Your task to perform on an android device: change the clock display to analog Image 0: 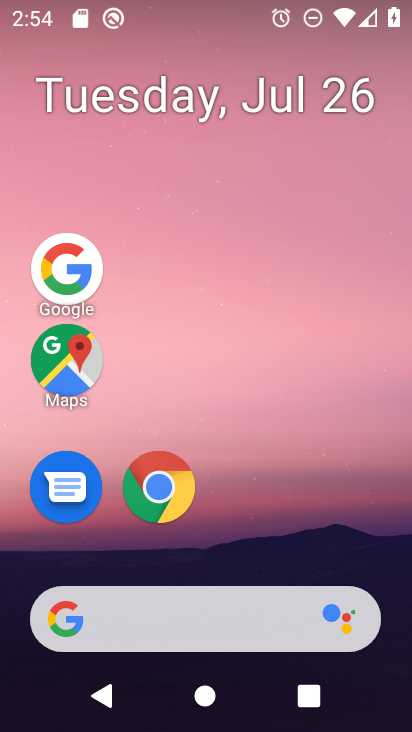
Step 0: drag from (193, 612) to (232, 221)
Your task to perform on an android device: change the clock display to analog Image 1: 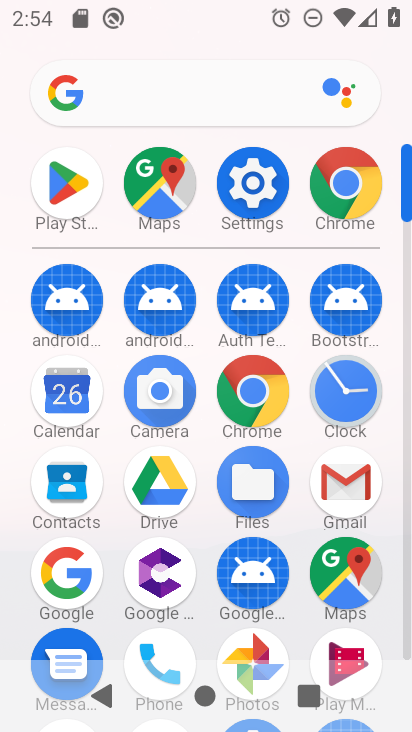
Step 1: click (341, 422)
Your task to perform on an android device: change the clock display to analog Image 2: 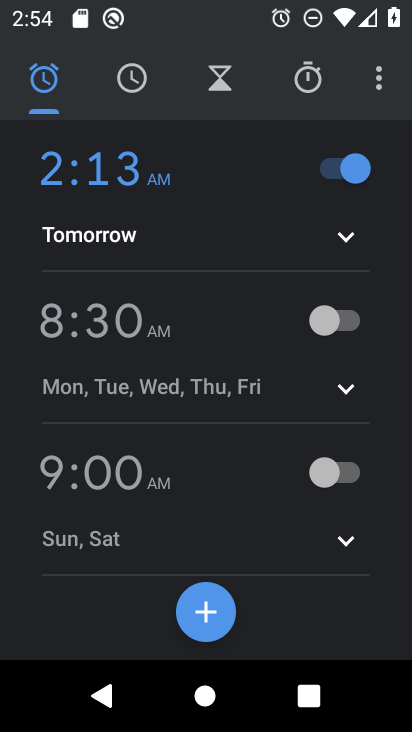
Step 2: click (377, 78)
Your task to perform on an android device: change the clock display to analog Image 3: 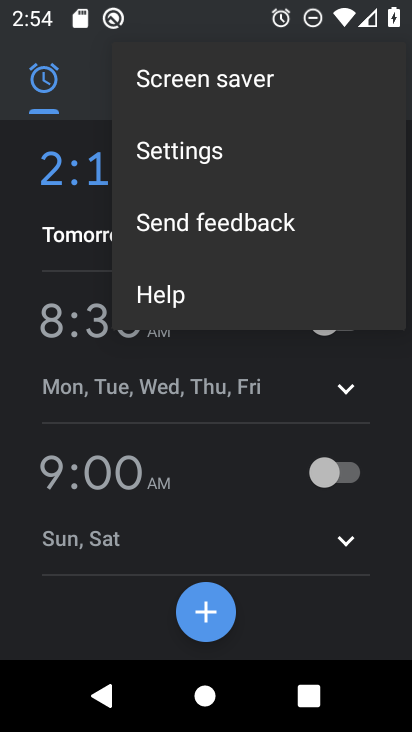
Step 3: click (210, 169)
Your task to perform on an android device: change the clock display to analog Image 4: 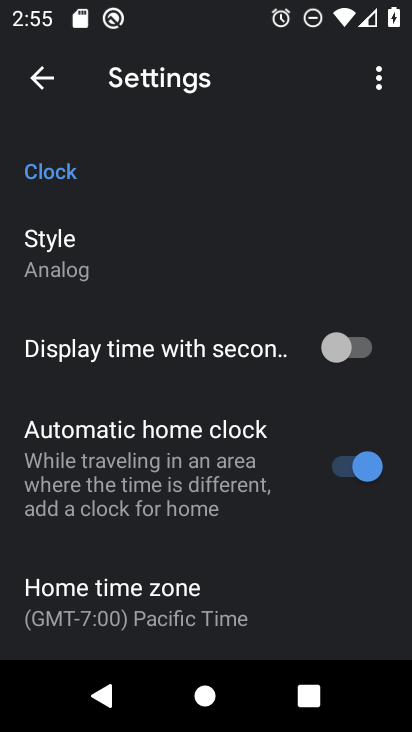
Step 4: task complete